Your task to perform on an android device: turn off data saver in the chrome app Image 0: 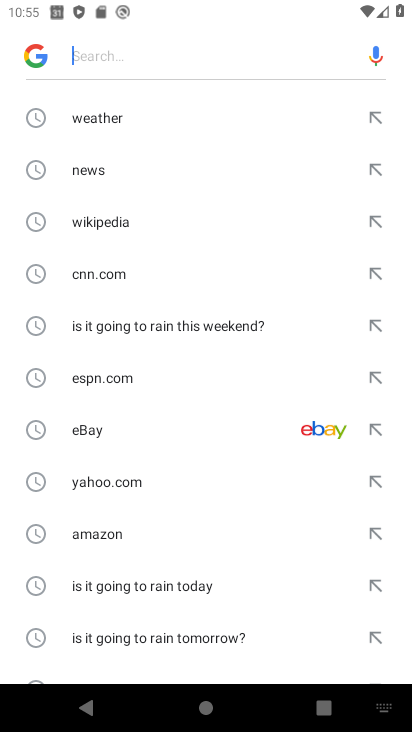
Step 0: press home button
Your task to perform on an android device: turn off data saver in the chrome app Image 1: 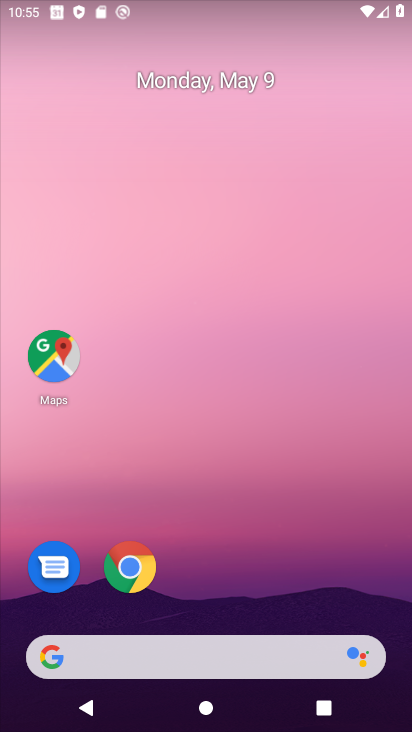
Step 1: drag from (355, 620) to (274, 116)
Your task to perform on an android device: turn off data saver in the chrome app Image 2: 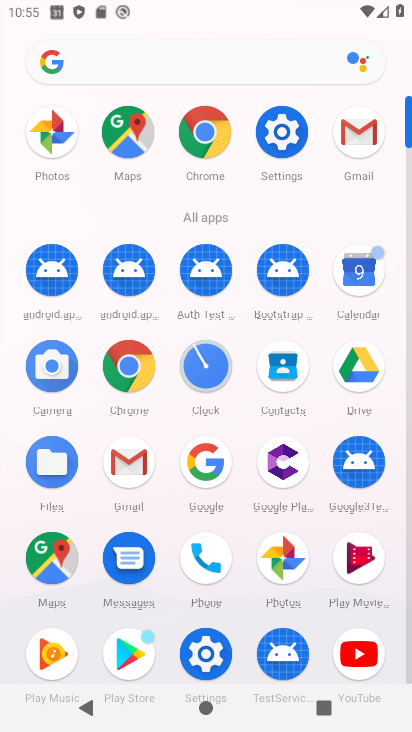
Step 2: click (210, 135)
Your task to perform on an android device: turn off data saver in the chrome app Image 3: 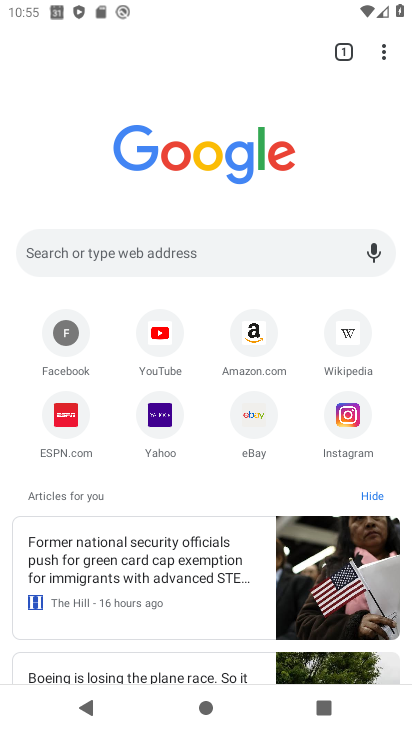
Step 3: click (380, 59)
Your task to perform on an android device: turn off data saver in the chrome app Image 4: 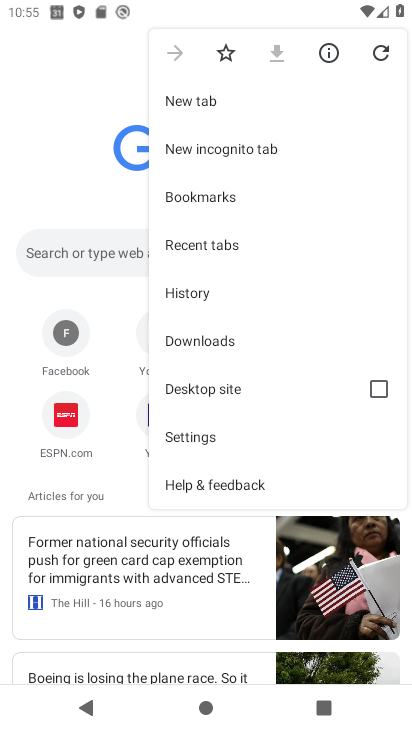
Step 4: click (229, 433)
Your task to perform on an android device: turn off data saver in the chrome app Image 5: 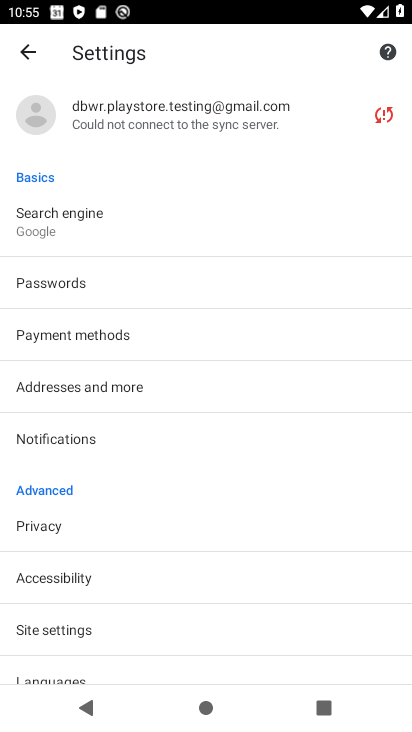
Step 5: drag from (129, 637) to (151, 291)
Your task to perform on an android device: turn off data saver in the chrome app Image 6: 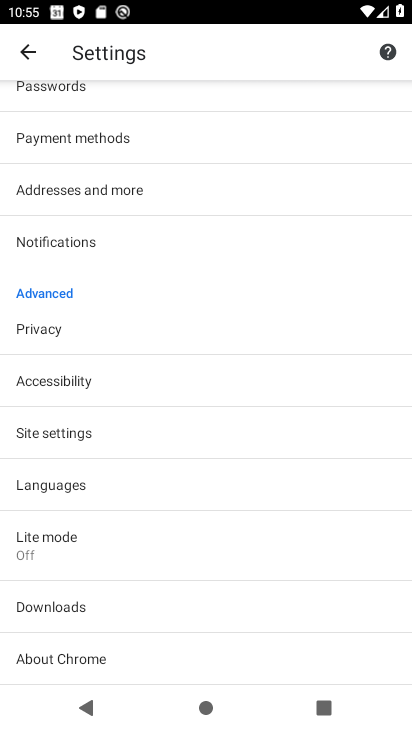
Step 6: click (110, 562)
Your task to perform on an android device: turn off data saver in the chrome app Image 7: 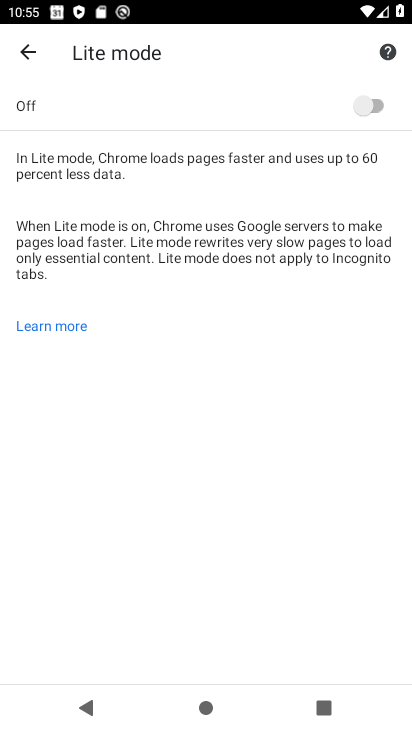
Step 7: task complete